Your task to perform on an android device: add a label to a message in the gmail app Image 0: 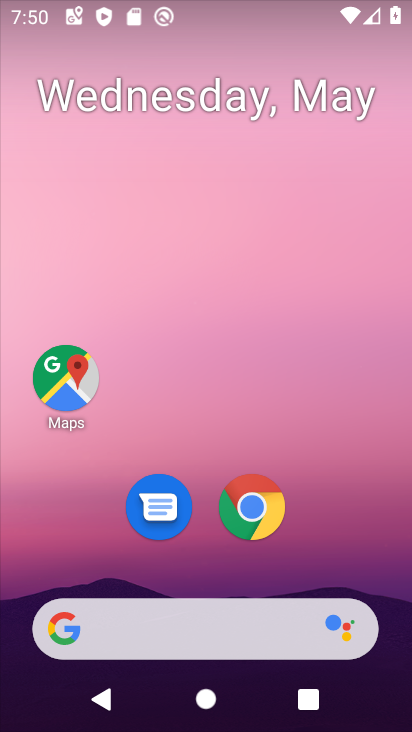
Step 0: drag from (303, 606) to (319, 233)
Your task to perform on an android device: add a label to a message in the gmail app Image 1: 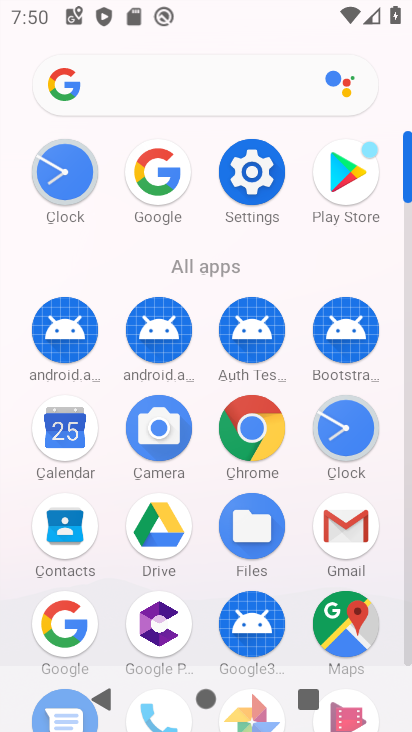
Step 1: click (342, 515)
Your task to perform on an android device: add a label to a message in the gmail app Image 2: 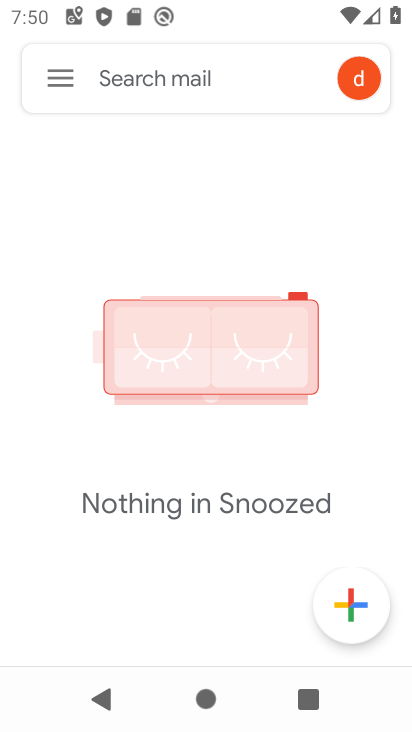
Step 2: click (53, 81)
Your task to perform on an android device: add a label to a message in the gmail app Image 3: 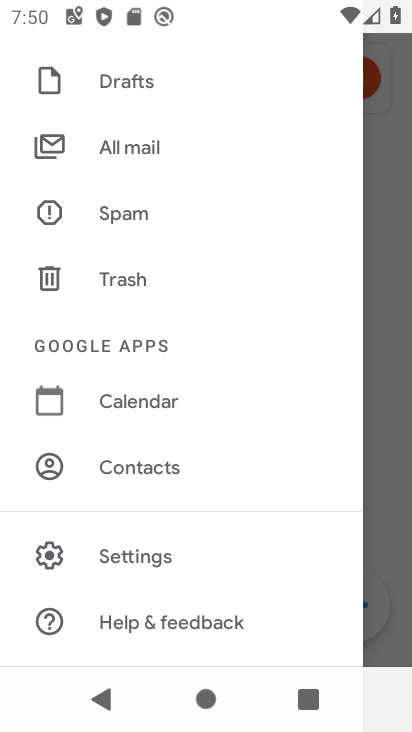
Step 3: click (123, 130)
Your task to perform on an android device: add a label to a message in the gmail app Image 4: 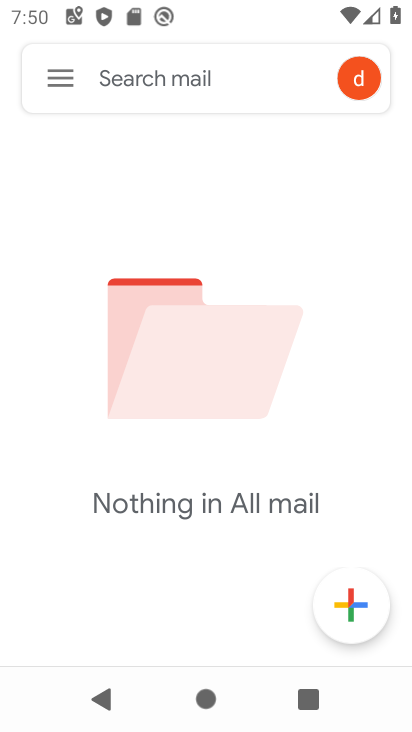
Step 4: task complete